Your task to perform on an android device: Show me popular videos on Youtube Image 0: 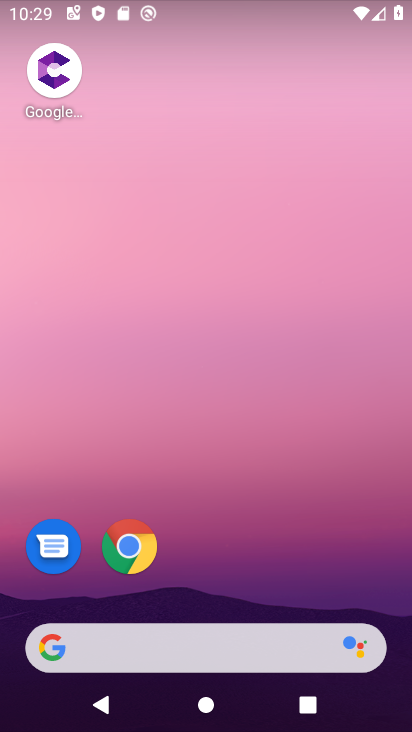
Step 0: drag from (214, 597) to (257, 152)
Your task to perform on an android device: Show me popular videos on Youtube Image 1: 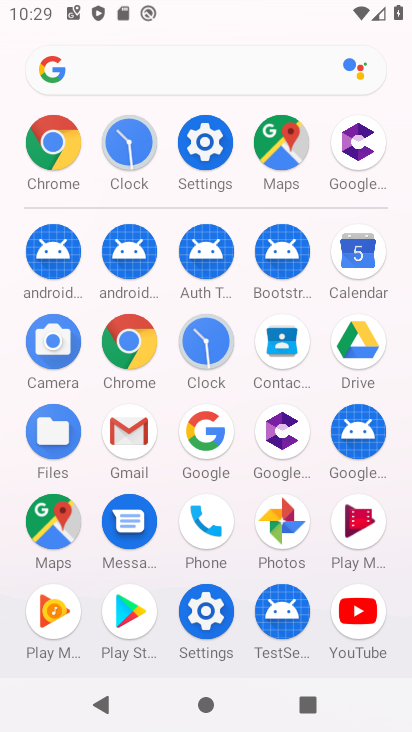
Step 1: click (362, 615)
Your task to perform on an android device: Show me popular videos on Youtube Image 2: 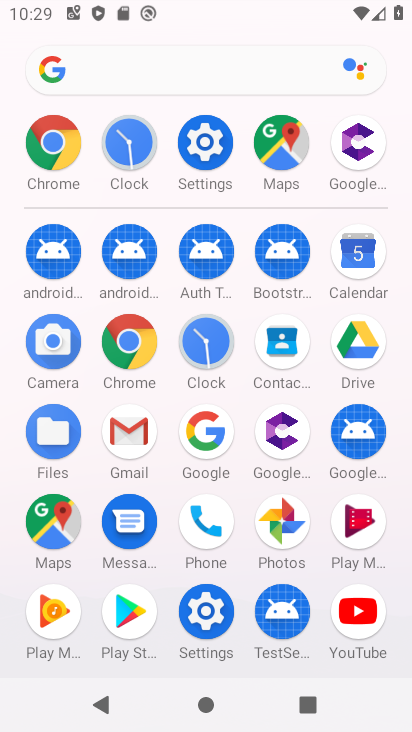
Step 2: click (346, 608)
Your task to perform on an android device: Show me popular videos on Youtube Image 3: 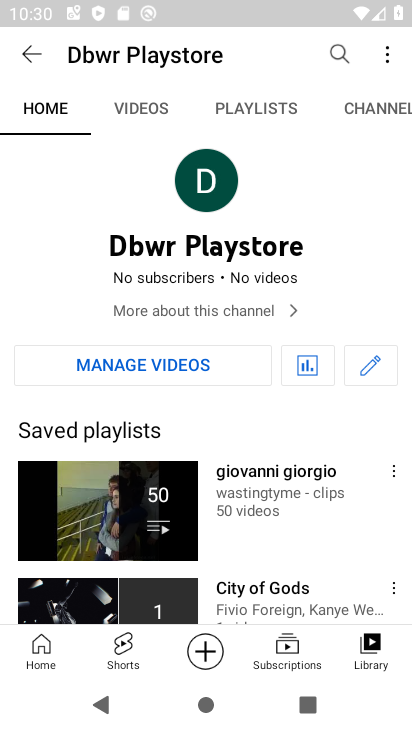
Step 3: click (28, 658)
Your task to perform on an android device: Show me popular videos on Youtube Image 4: 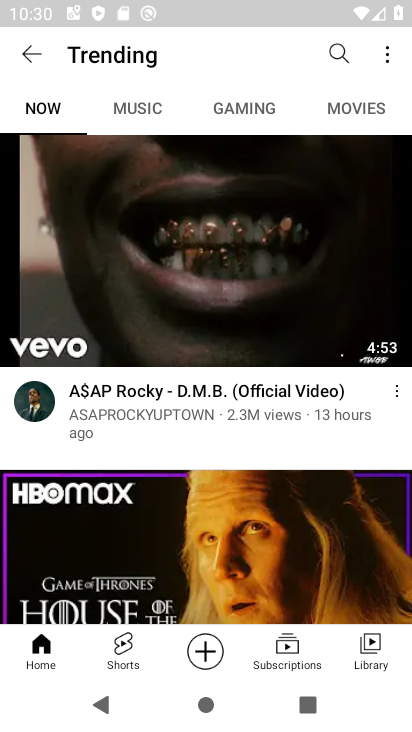
Step 4: drag from (86, 224) to (153, 568)
Your task to perform on an android device: Show me popular videos on Youtube Image 5: 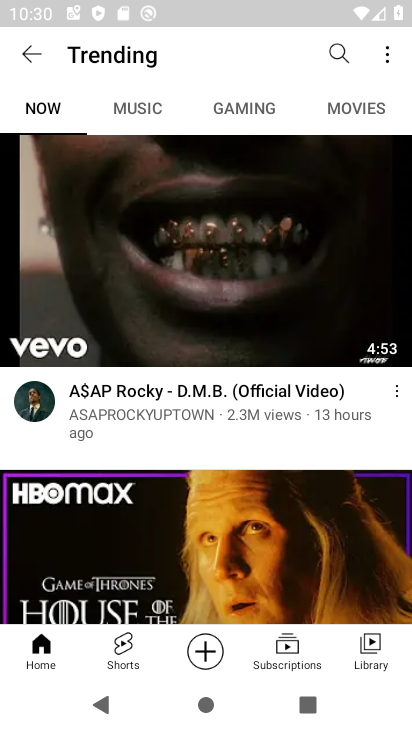
Step 5: click (36, 57)
Your task to perform on an android device: Show me popular videos on Youtube Image 6: 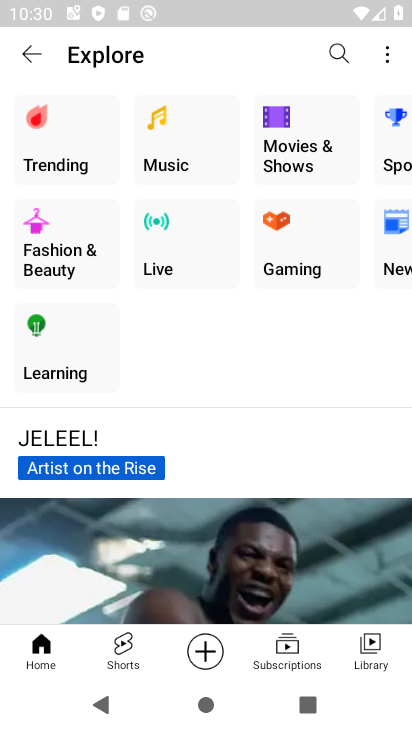
Step 6: click (55, 157)
Your task to perform on an android device: Show me popular videos on Youtube Image 7: 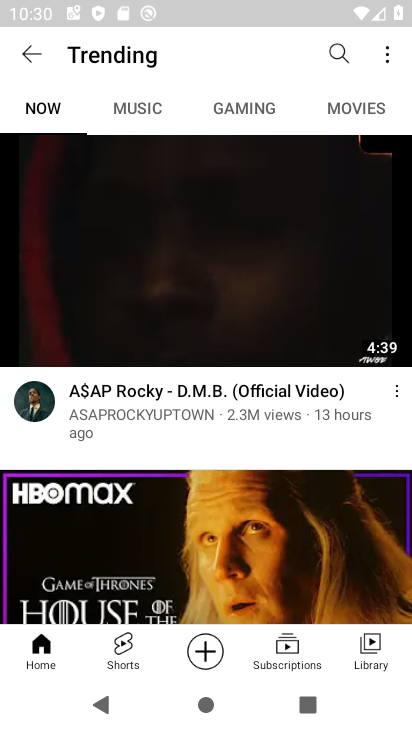
Step 7: task complete